Your task to perform on an android device: Open battery settings Image 0: 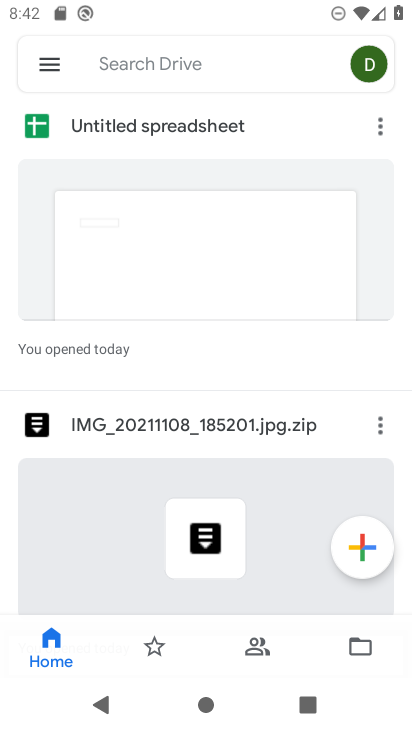
Step 0: press home button
Your task to perform on an android device: Open battery settings Image 1: 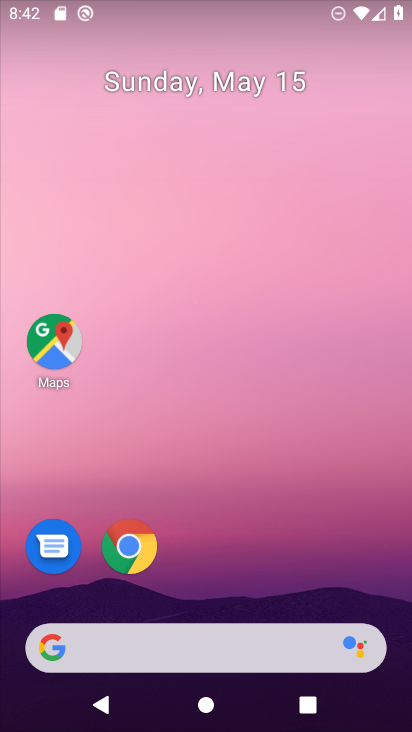
Step 1: drag from (240, 560) to (227, 47)
Your task to perform on an android device: Open battery settings Image 2: 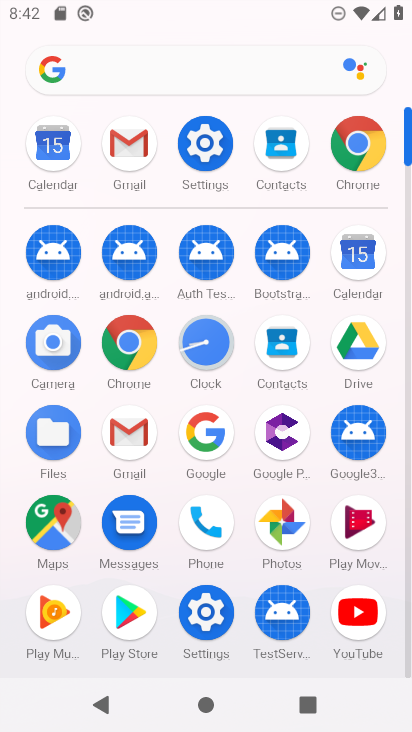
Step 2: click (209, 135)
Your task to perform on an android device: Open battery settings Image 3: 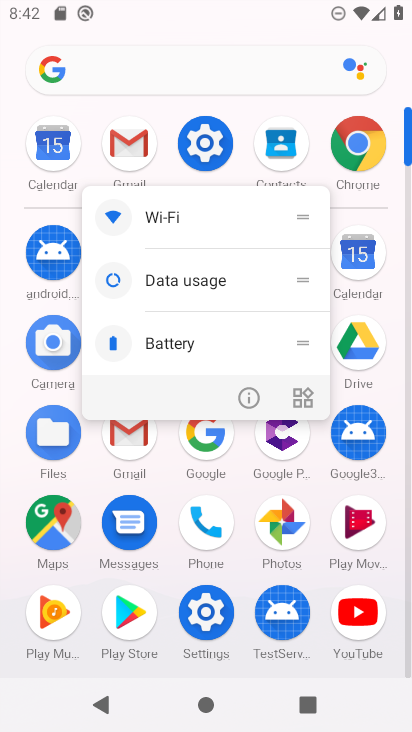
Step 3: click (209, 135)
Your task to perform on an android device: Open battery settings Image 4: 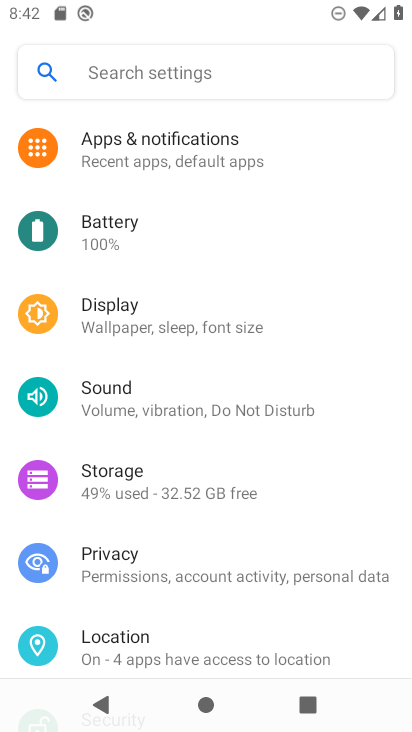
Step 4: click (183, 222)
Your task to perform on an android device: Open battery settings Image 5: 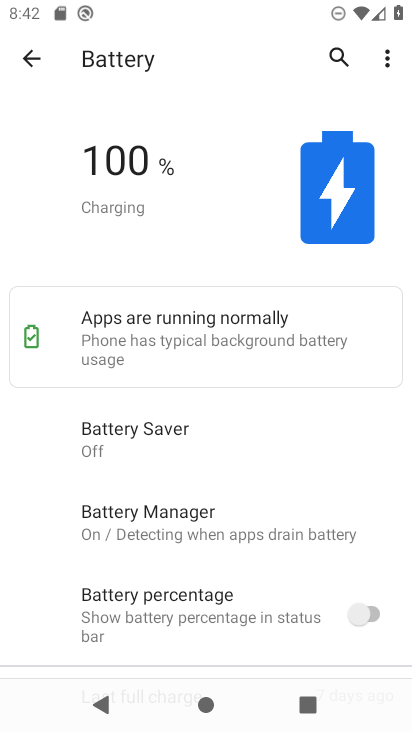
Step 5: task complete